Your task to perform on an android device: open a new tab in the chrome app Image 0: 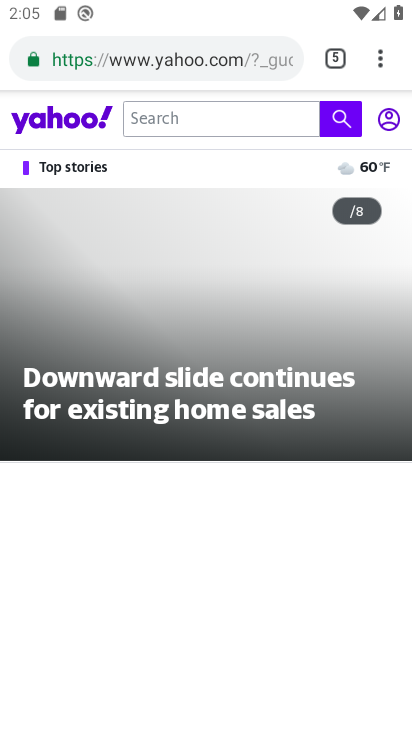
Step 0: press home button
Your task to perform on an android device: open a new tab in the chrome app Image 1: 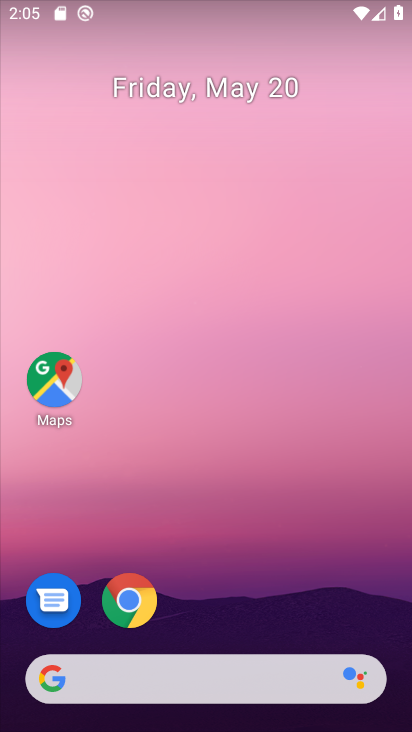
Step 1: click (127, 609)
Your task to perform on an android device: open a new tab in the chrome app Image 2: 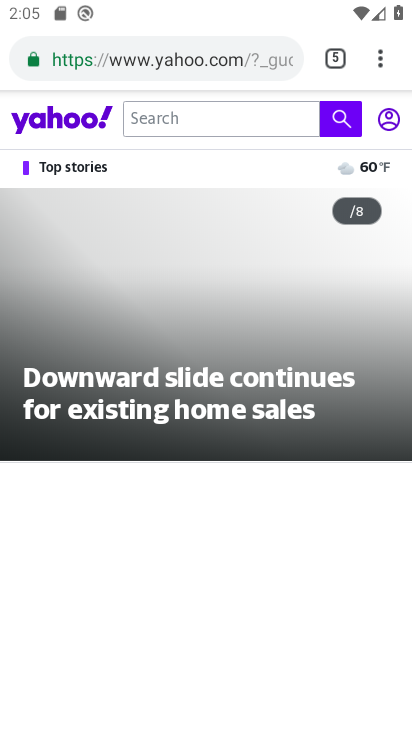
Step 2: click (377, 54)
Your task to perform on an android device: open a new tab in the chrome app Image 3: 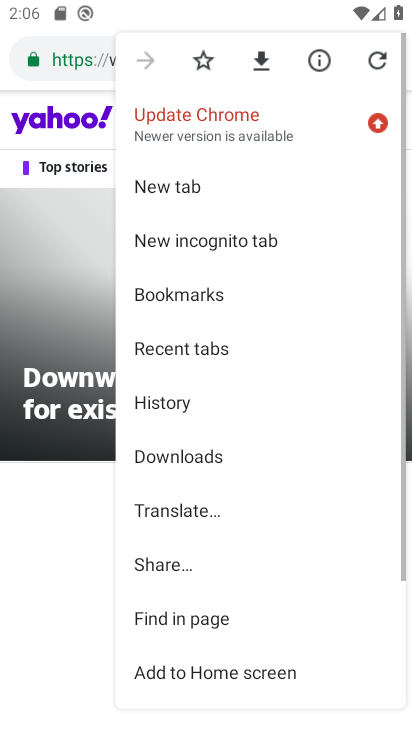
Step 3: click (205, 196)
Your task to perform on an android device: open a new tab in the chrome app Image 4: 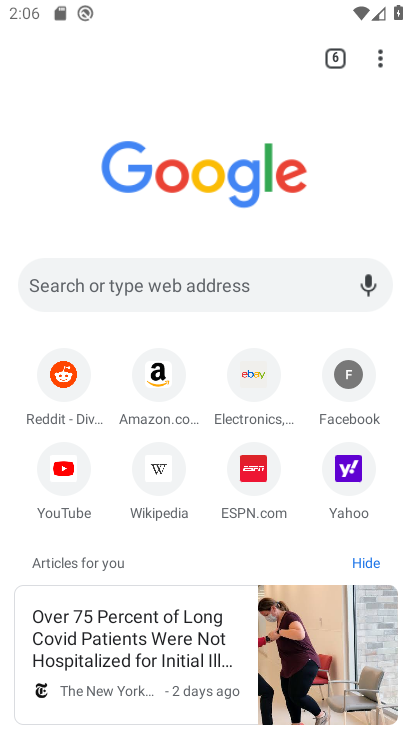
Step 4: task complete